Your task to perform on an android device: check data usage Image 0: 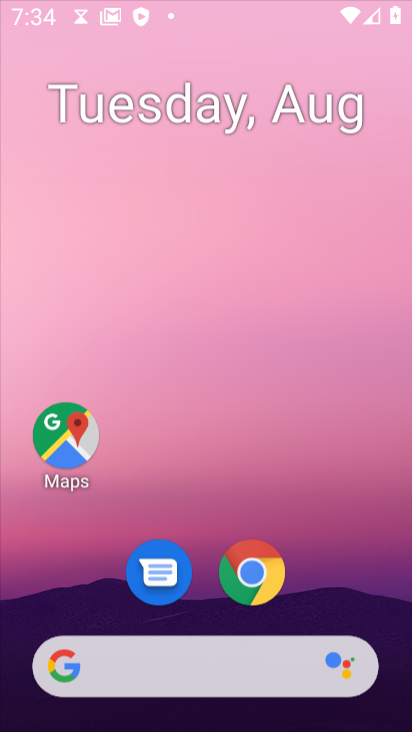
Step 0: press home button
Your task to perform on an android device: check data usage Image 1: 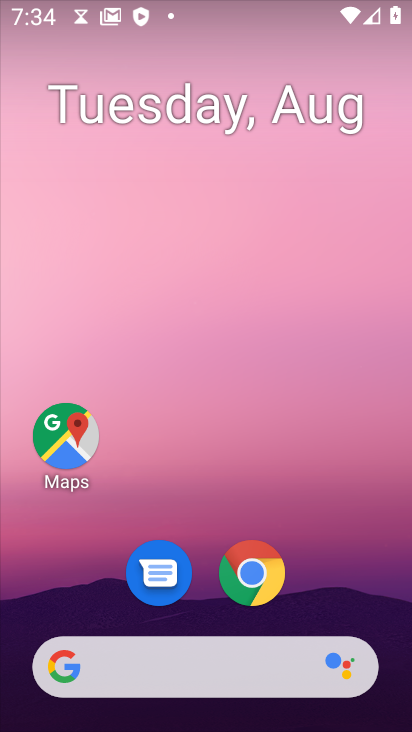
Step 1: drag from (205, 607) to (253, 26)
Your task to perform on an android device: check data usage Image 2: 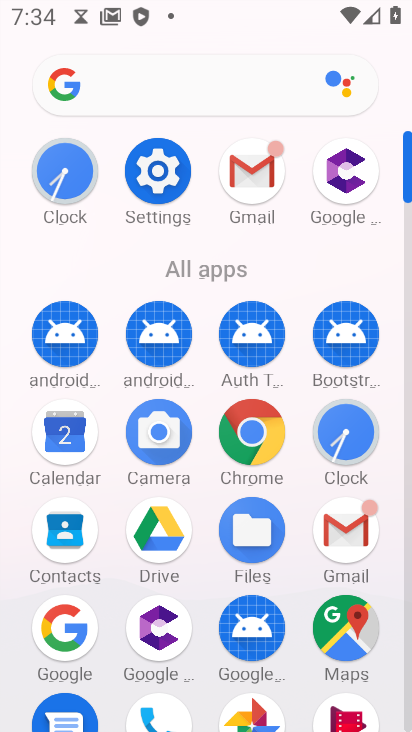
Step 2: click (156, 164)
Your task to perform on an android device: check data usage Image 3: 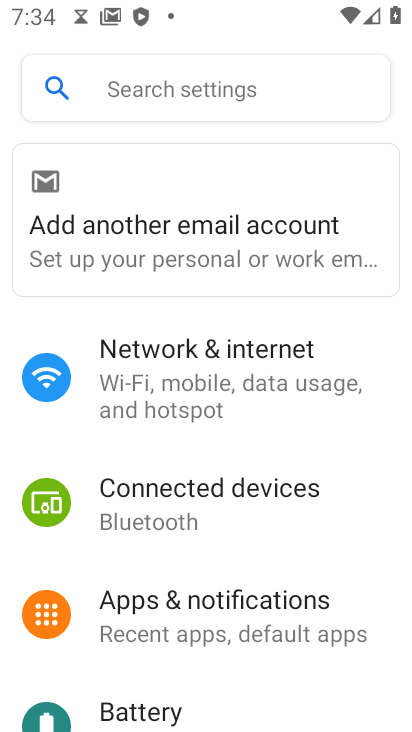
Step 3: click (191, 377)
Your task to perform on an android device: check data usage Image 4: 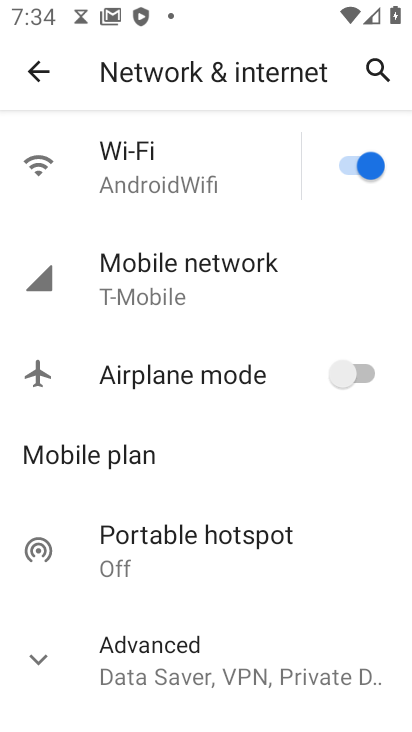
Step 4: click (198, 284)
Your task to perform on an android device: check data usage Image 5: 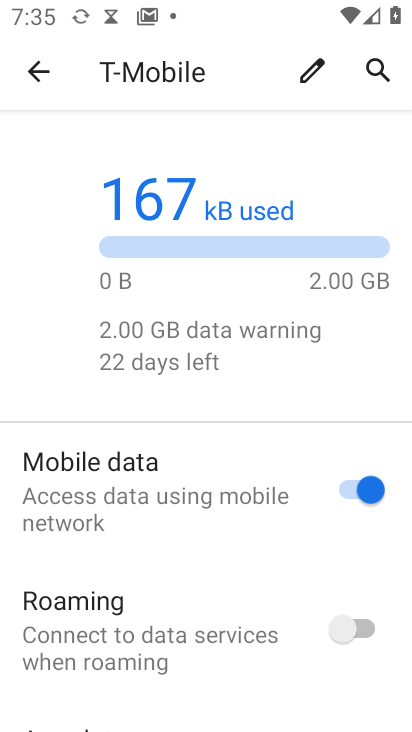
Step 5: drag from (191, 617) to (227, 159)
Your task to perform on an android device: check data usage Image 6: 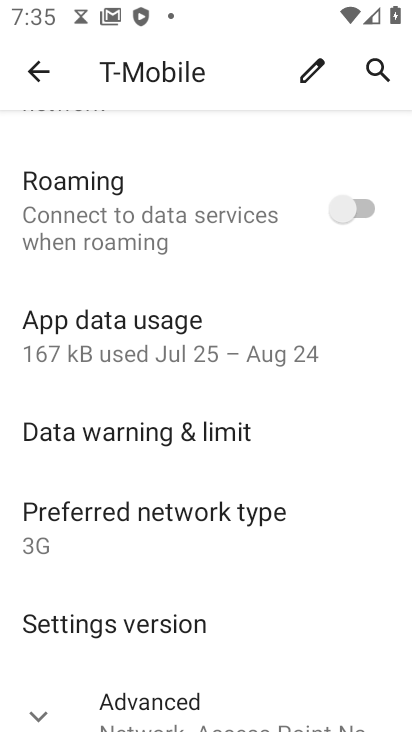
Step 6: click (227, 330)
Your task to perform on an android device: check data usage Image 7: 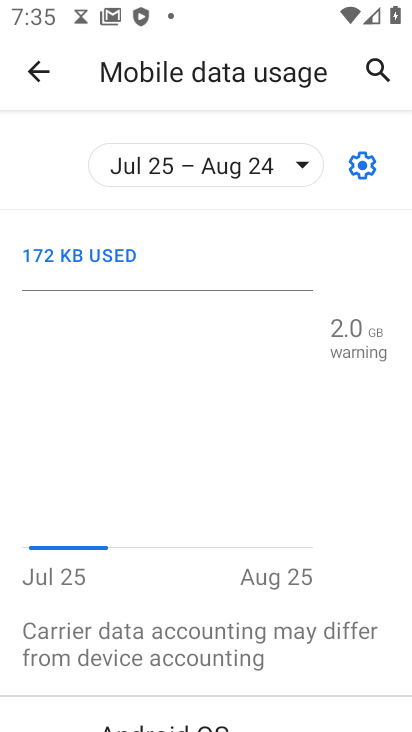
Step 7: task complete